Your task to perform on an android device: turn off location Image 0: 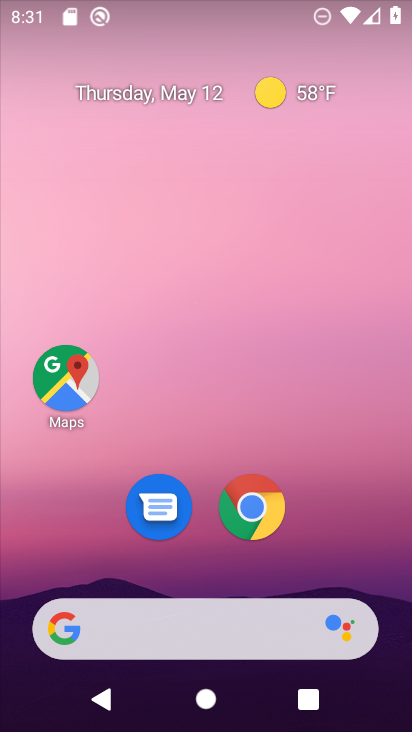
Step 0: drag from (197, 586) to (206, 249)
Your task to perform on an android device: turn off location Image 1: 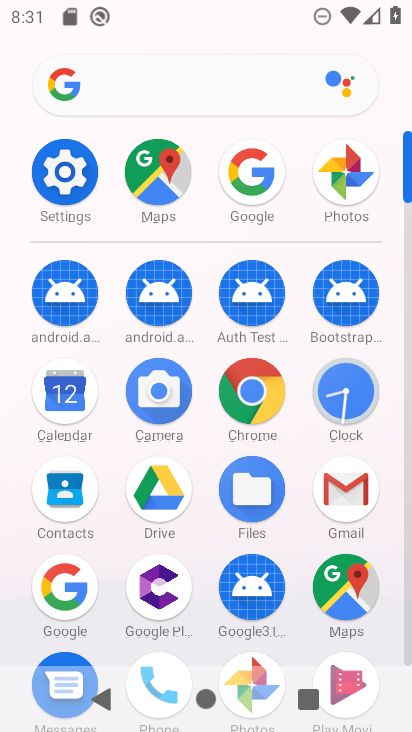
Step 1: click (70, 156)
Your task to perform on an android device: turn off location Image 2: 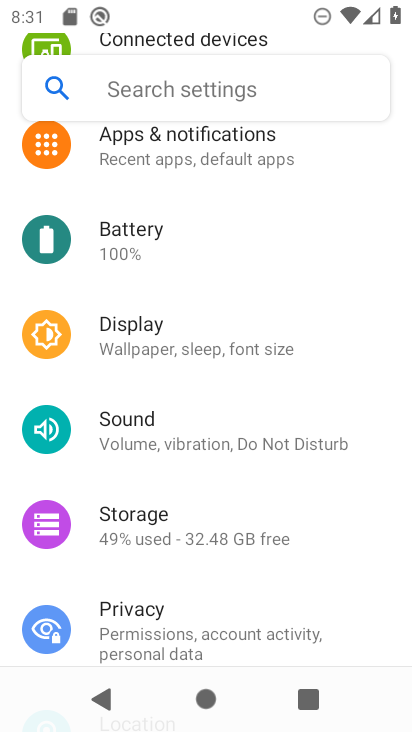
Step 2: drag from (188, 602) to (192, 294)
Your task to perform on an android device: turn off location Image 3: 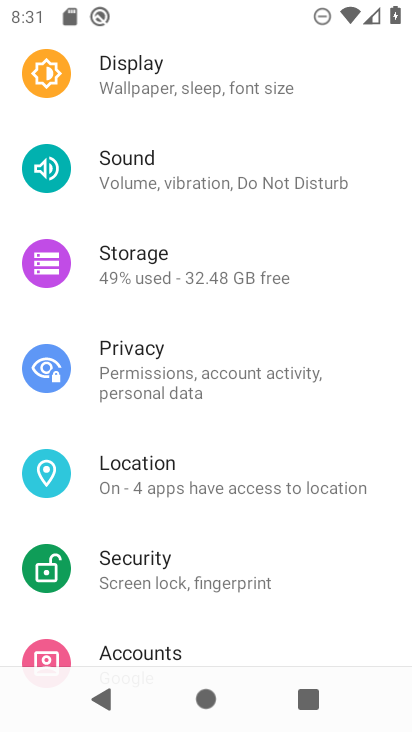
Step 3: click (190, 455)
Your task to perform on an android device: turn off location Image 4: 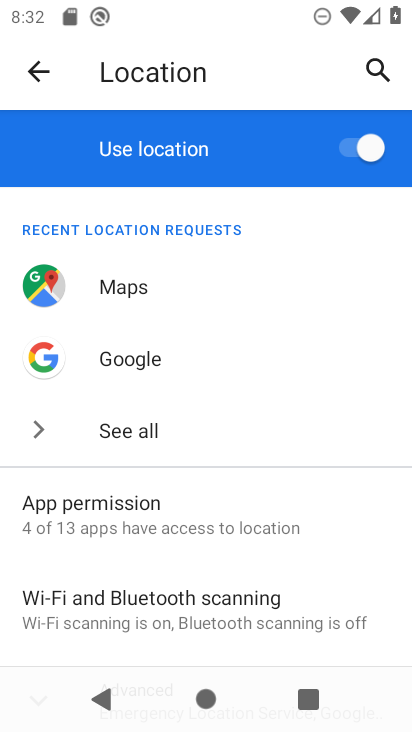
Step 4: drag from (177, 569) to (169, 336)
Your task to perform on an android device: turn off location Image 5: 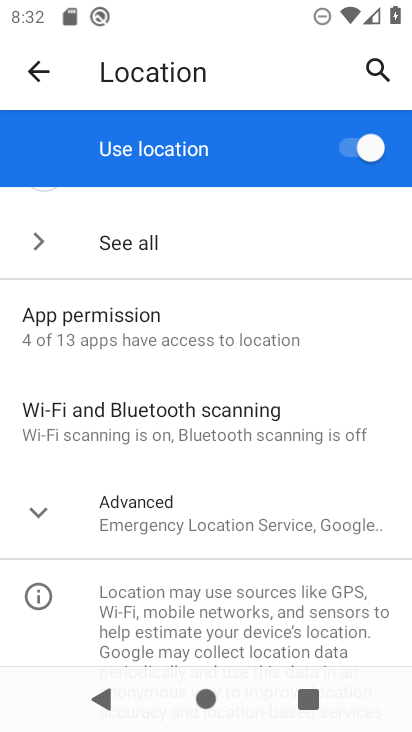
Step 5: click (354, 143)
Your task to perform on an android device: turn off location Image 6: 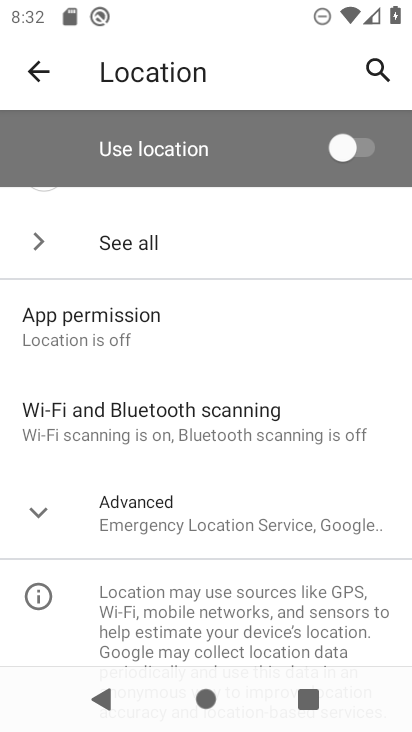
Step 6: task complete